Your task to perform on an android device: turn off airplane mode Image 0: 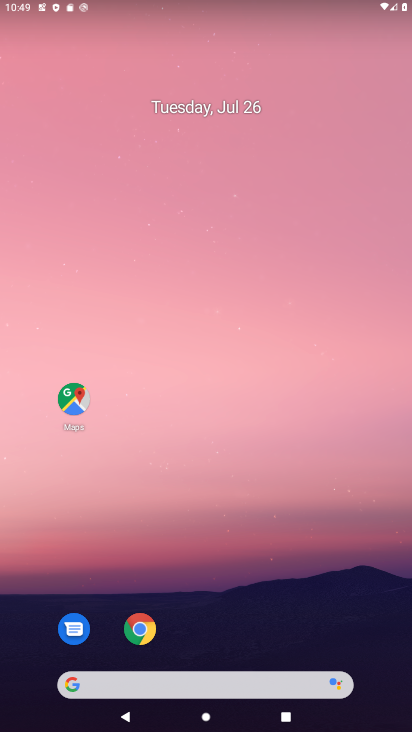
Step 0: drag from (177, 601) to (177, 69)
Your task to perform on an android device: turn off airplane mode Image 1: 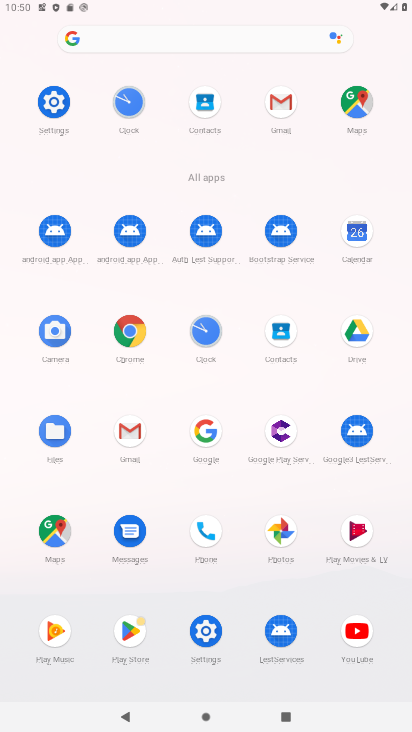
Step 1: click (48, 96)
Your task to perform on an android device: turn off airplane mode Image 2: 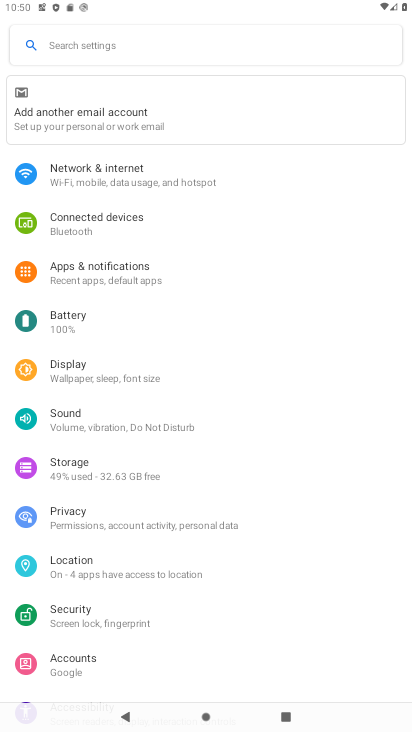
Step 2: click (95, 169)
Your task to perform on an android device: turn off airplane mode Image 3: 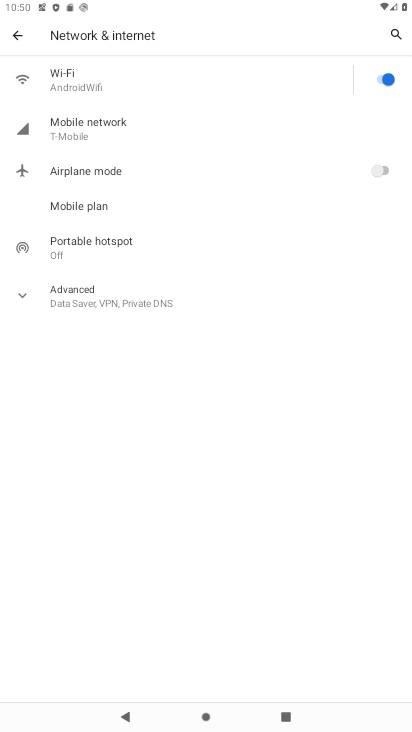
Step 3: task complete